Your task to perform on an android device: Open the stopwatch Image 0: 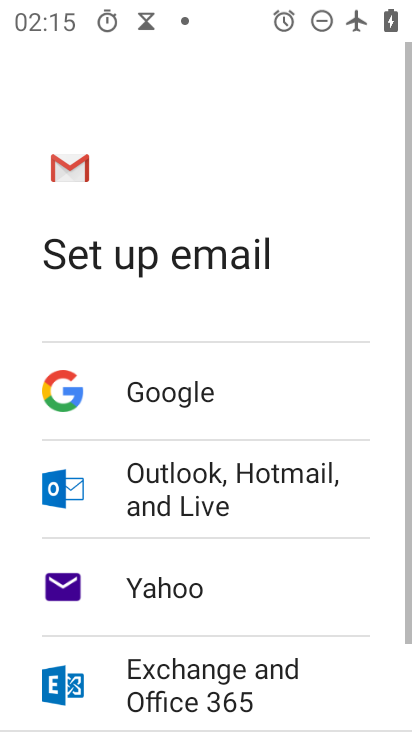
Step 0: press home button
Your task to perform on an android device: Open the stopwatch Image 1: 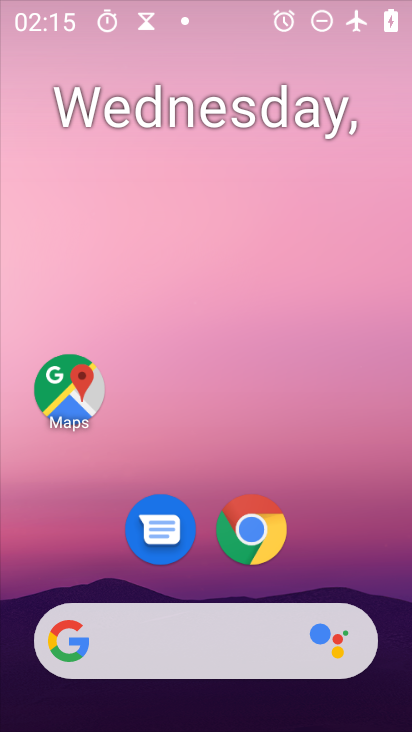
Step 1: drag from (182, 645) to (233, 51)
Your task to perform on an android device: Open the stopwatch Image 2: 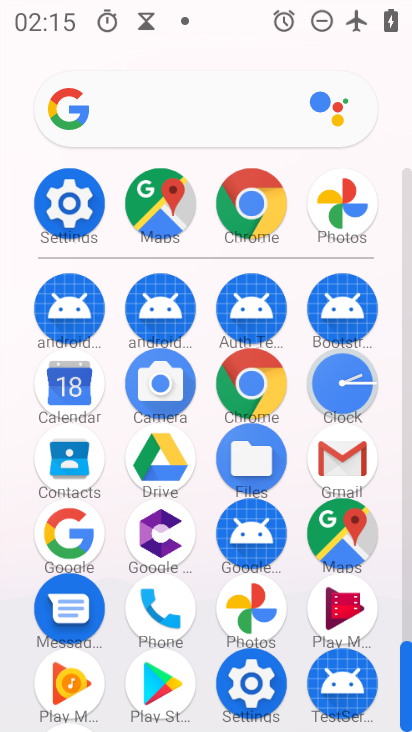
Step 2: click (345, 372)
Your task to perform on an android device: Open the stopwatch Image 3: 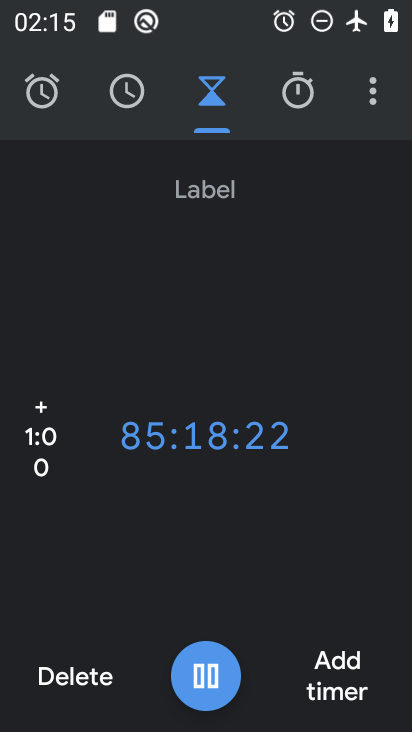
Step 3: click (301, 103)
Your task to perform on an android device: Open the stopwatch Image 4: 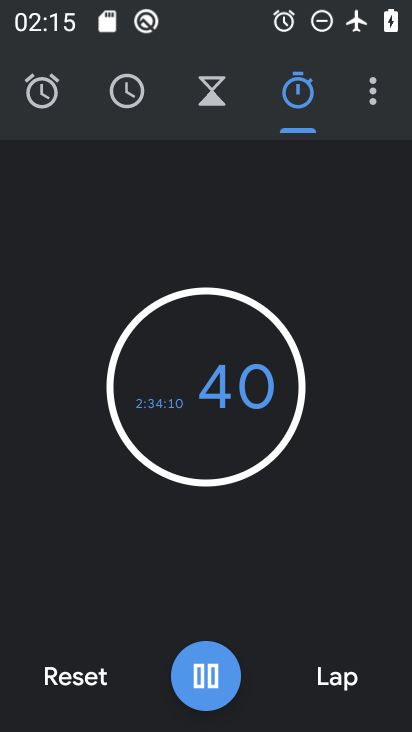
Step 4: click (83, 683)
Your task to perform on an android device: Open the stopwatch Image 5: 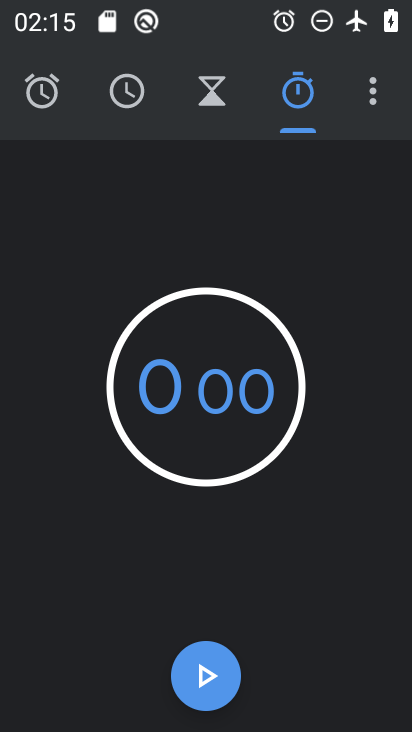
Step 5: click (211, 652)
Your task to perform on an android device: Open the stopwatch Image 6: 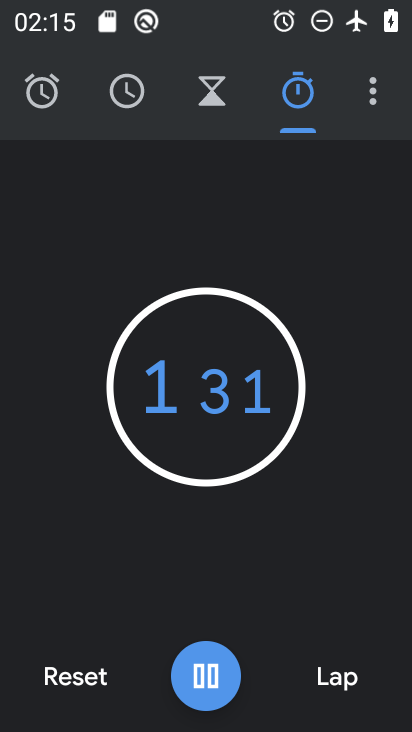
Step 6: task complete